Your task to perform on an android device: install app "Roku - Official Remote Control" Image 0: 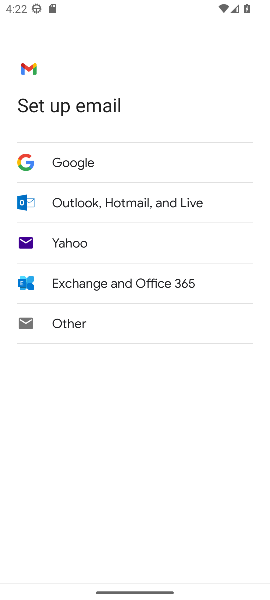
Step 0: press home button
Your task to perform on an android device: install app "Roku - Official Remote Control" Image 1: 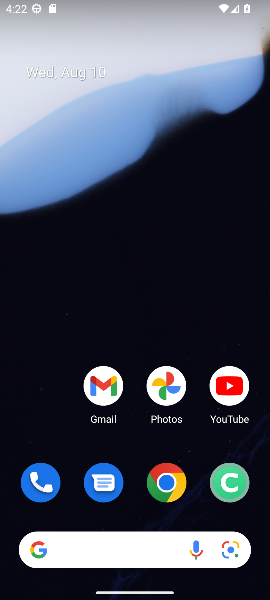
Step 1: drag from (150, 524) to (135, 58)
Your task to perform on an android device: install app "Roku - Official Remote Control" Image 2: 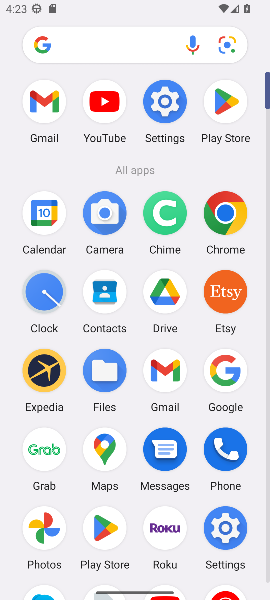
Step 2: click (103, 527)
Your task to perform on an android device: install app "Roku - Official Remote Control" Image 3: 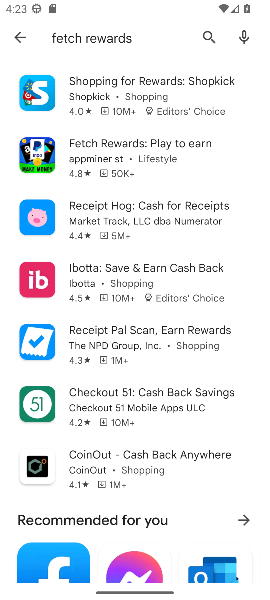
Step 3: click (207, 37)
Your task to perform on an android device: install app "Roku - Official Remote Control" Image 4: 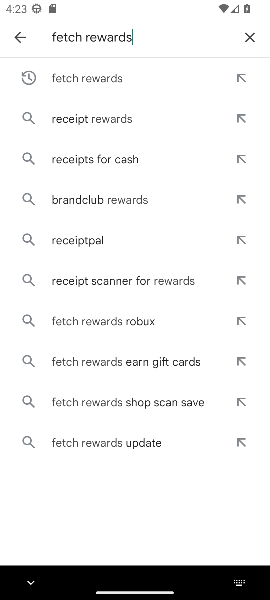
Step 4: click (248, 33)
Your task to perform on an android device: install app "Roku - Official Remote Control" Image 5: 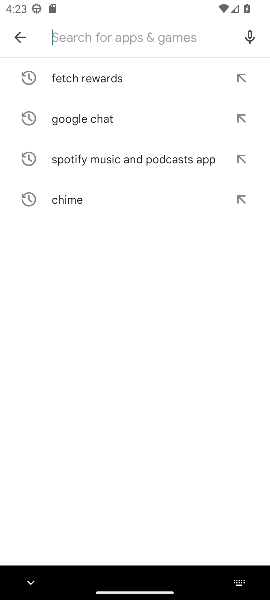
Step 5: type "Roku - Official Remote Control"
Your task to perform on an android device: install app "Roku - Official Remote Control" Image 6: 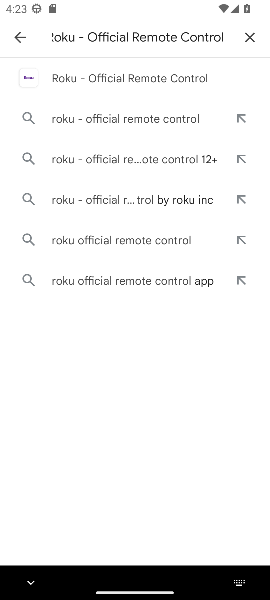
Step 6: click (151, 79)
Your task to perform on an android device: install app "Roku - Official Remote Control" Image 7: 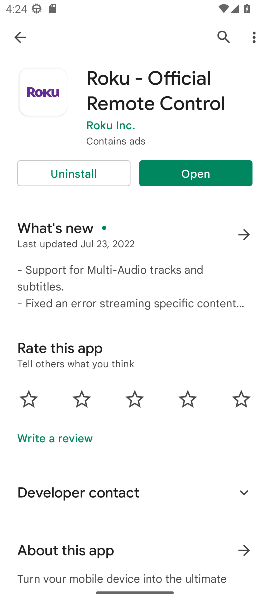
Step 7: task complete